Your task to perform on an android device: toggle priority inbox in the gmail app Image 0: 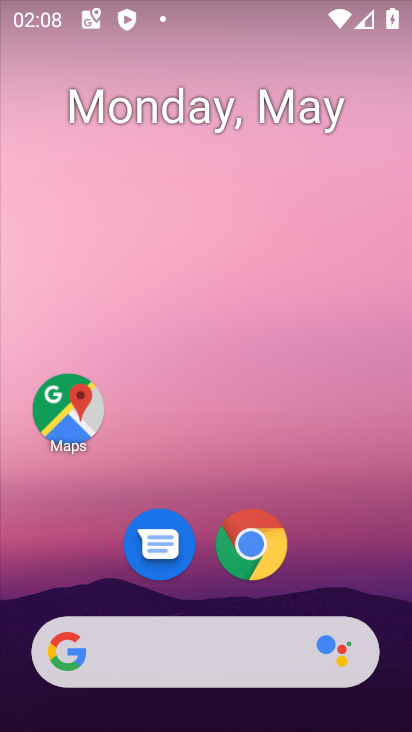
Step 0: drag from (361, 575) to (374, 289)
Your task to perform on an android device: toggle priority inbox in the gmail app Image 1: 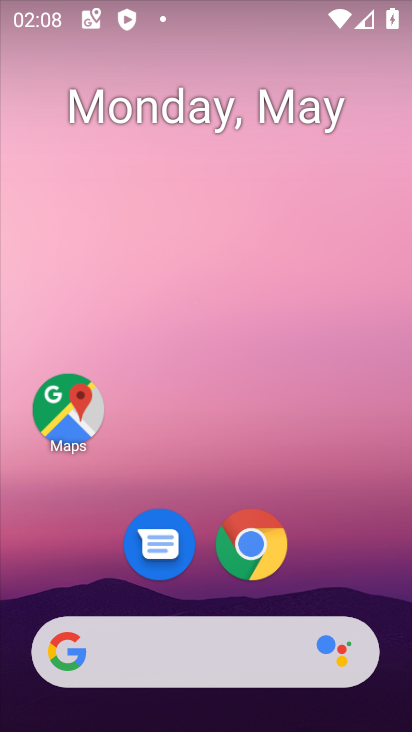
Step 1: drag from (397, 537) to (411, 422)
Your task to perform on an android device: toggle priority inbox in the gmail app Image 2: 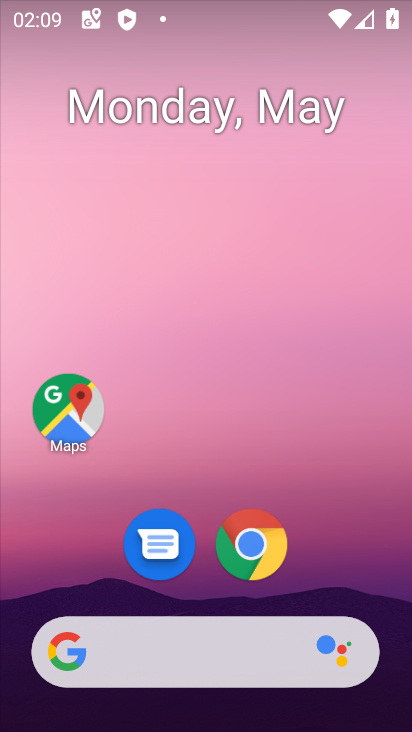
Step 2: drag from (369, 592) to (364, 295)
Your task to perform on an android device: toggle priority inbox in the gmail app Image 3: 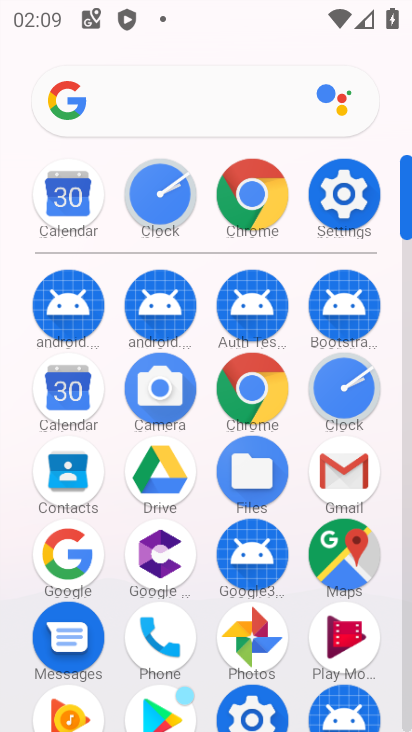
Step 3: click (361, 496)
Your task to perform on an android device: toggle priority inbox in the gmail app Image 4: 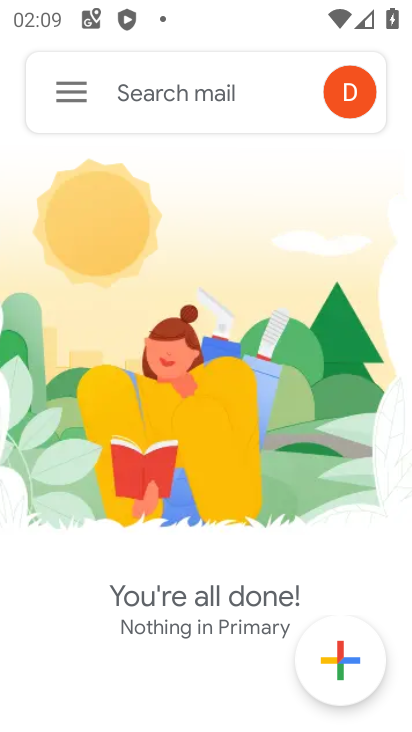
Step 4: click (55, 96)
Your task to perform on an android device: toggle priority inbox in the gmail app Image 5: 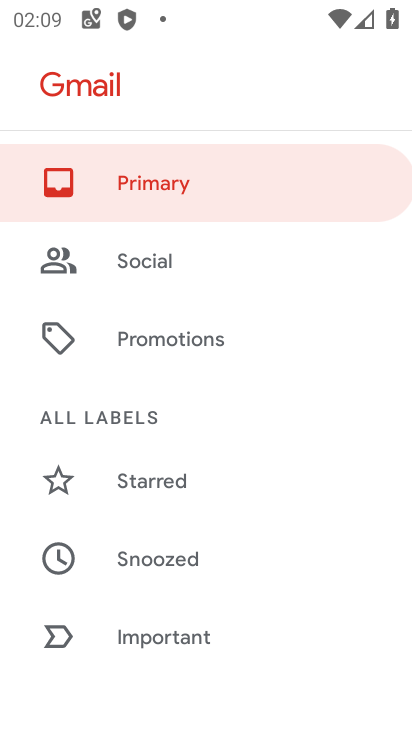
Step 5: drag from (266, 453) to (279, 334)
Your task to perform on an android device: toggle priority inbox in the gmail app Image 6: 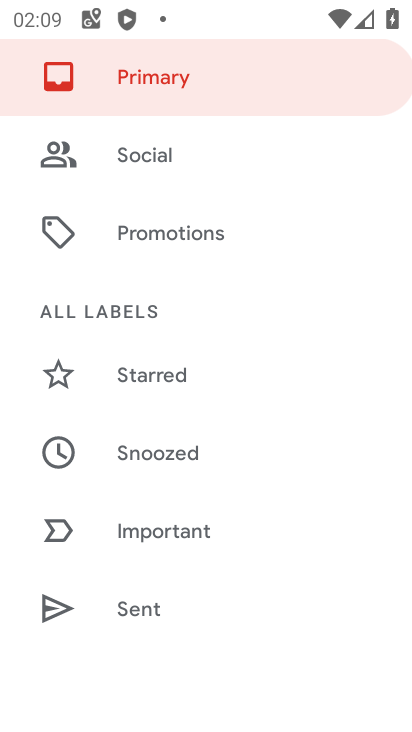
Step 6: drag from (312, 476) to (315, 430)
Your task to perform on an android device: toggle priority inbox in the gmail app Image 7: 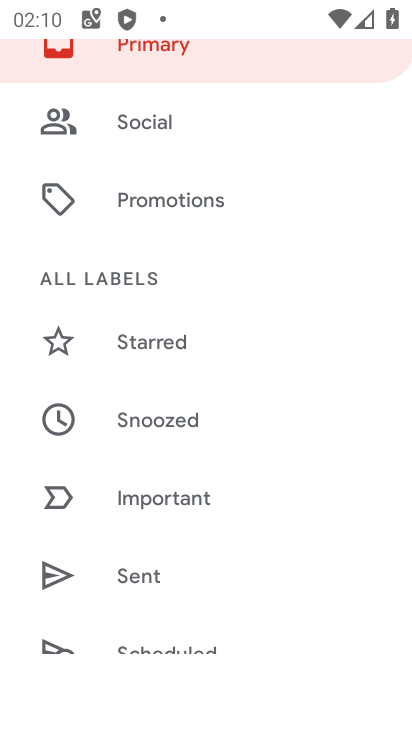
Step 7: drag from (273, 529) to (278, 467)
Your task to perform on an android device: toggle priority inbox in the gmail app Image 8: 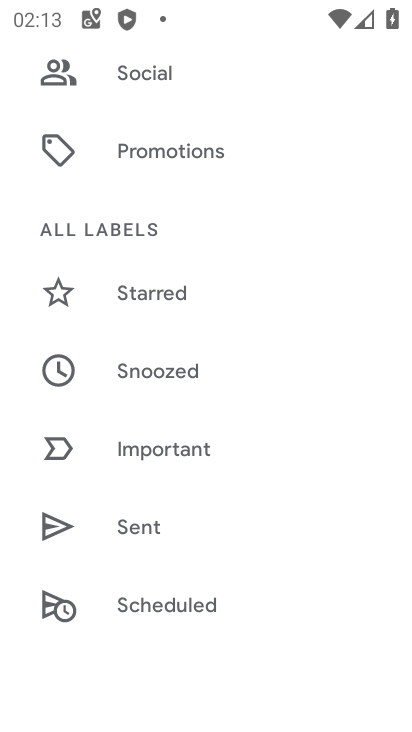
Step 8: drag from (279, 577) to (310, 351)
Your task to perform on an android device: toggle priority inbox in the gmail app Image 9: 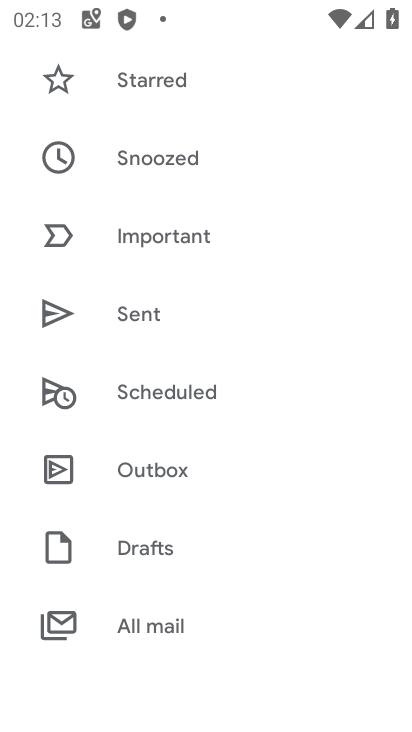
Step 9: drag from (282, 586) to (314, 405)
Your task to perform on an android device: toggle priority inbox in the gmail app Image 10: 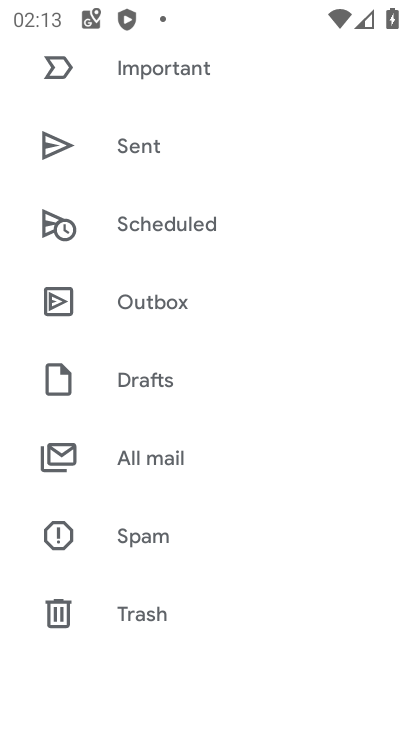
Step 10: drag from (285, 591) to (302, 435)
Your task to perform on an android device: toggle priority inbox in the gmail app Image 11: 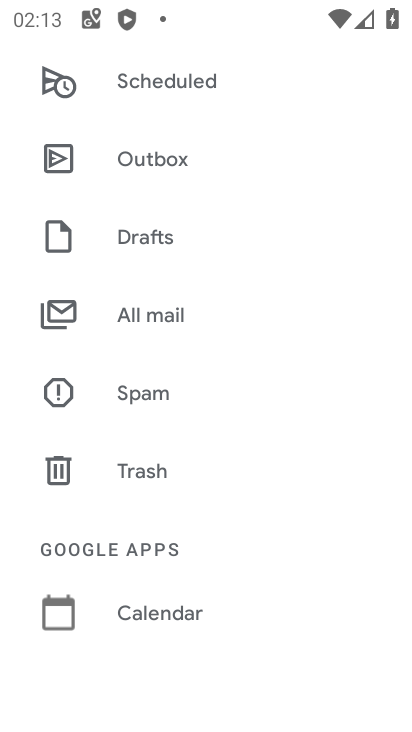
Step 11: drag from (276, 563) to (289, 405)
Your task to perform on an android device: toggle priority inbox in the gmail app Image 12: 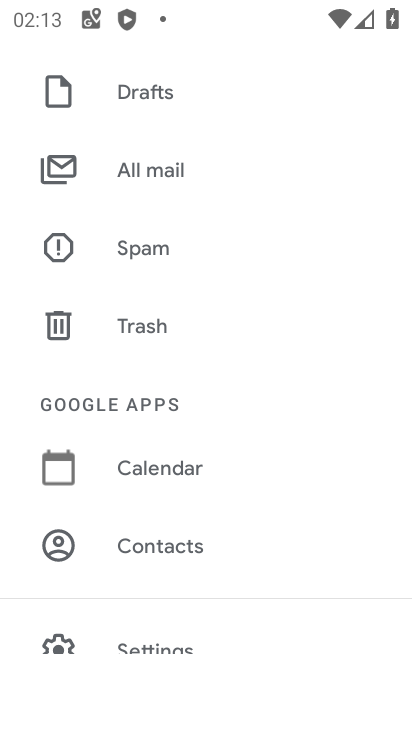
Step 12: drag from (257, 628) to (266, 469)
Your task to perform on an android device: toggle priority inbox in the gmail app Image 13: 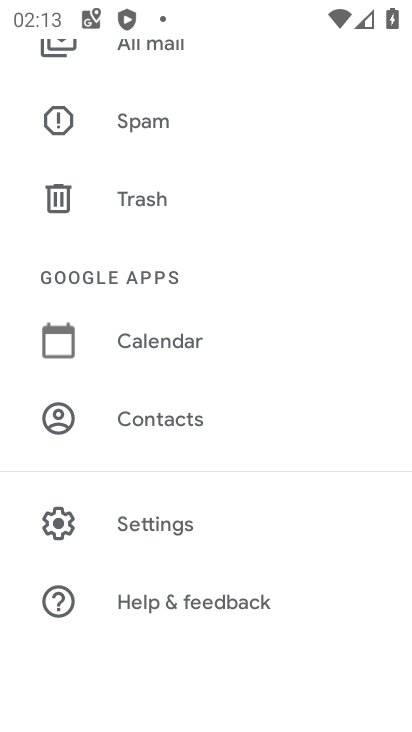
Step 13: click (214, 521)
Your task to perform on an android device: toggle priority inbox in the gmail app Image 14: 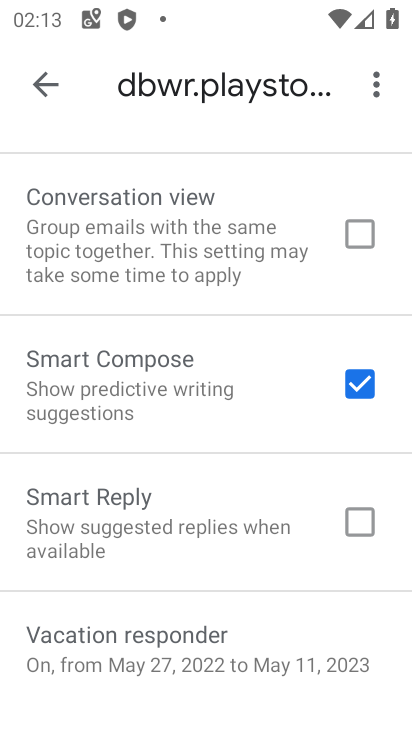
Step 14: drag from (229, 543) to (256, 363)
Your task to perform on an android device: toggle priority inbox in the gmail app Image 15: 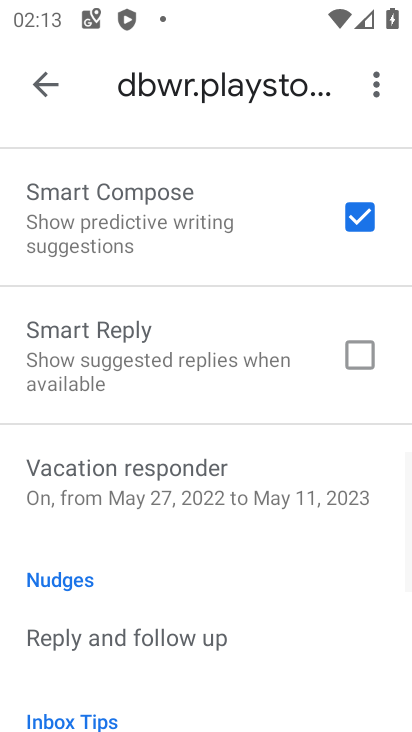
Step 15: drag from (257, 272) to (275, 528)
Your task to perform on an android device: toggle priority inbox in the gmail app Image 16: 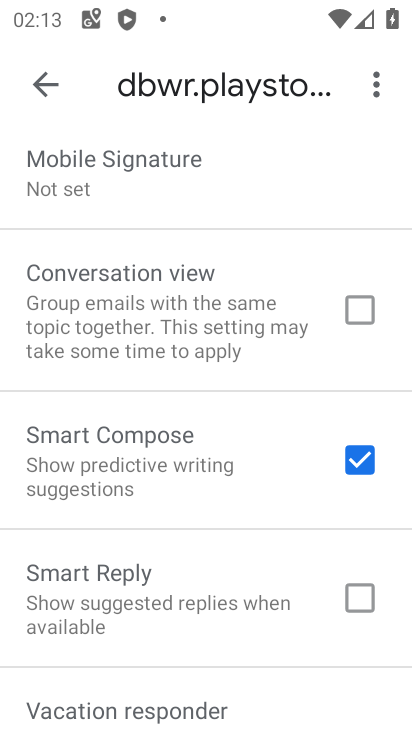
Step 16: drag from (278, 262) to (243, 486)
Your task to perform on an android device: toggle priority inbox in the gmail app Image 17: 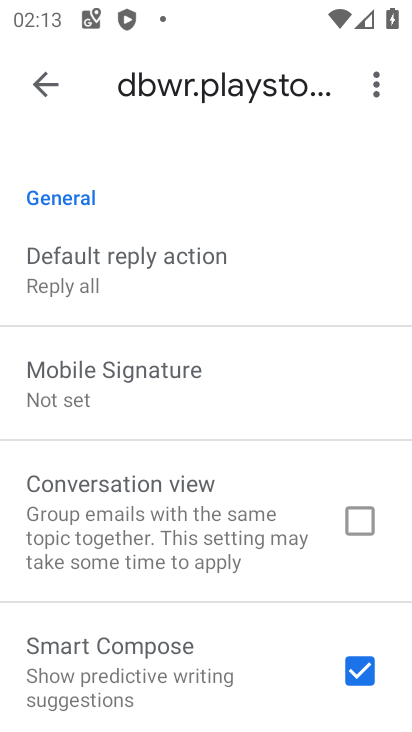
Step 17: drag from (149, 218) to (142, 454)
Your task to perform on an android device: toggle priority inbox in the gmail app Image 18: 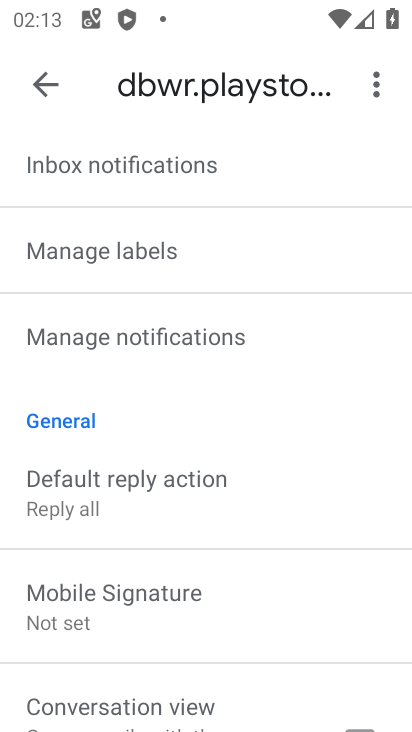
Step 18: drag from (158, 203) to (148, 450)
Your task to perform on an android device: toggle priority inbox in the gmail app Image 19: 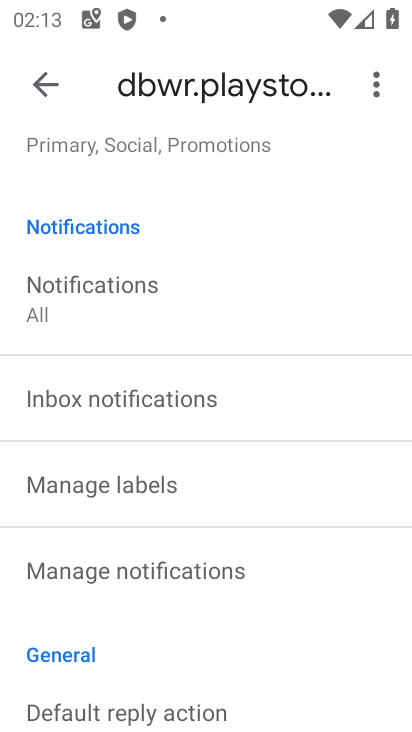
Step 19: drag from (100, 202) to (118, 480)
Your task to perform on an android device: toggle priority inbox in the gmail app Image 20: 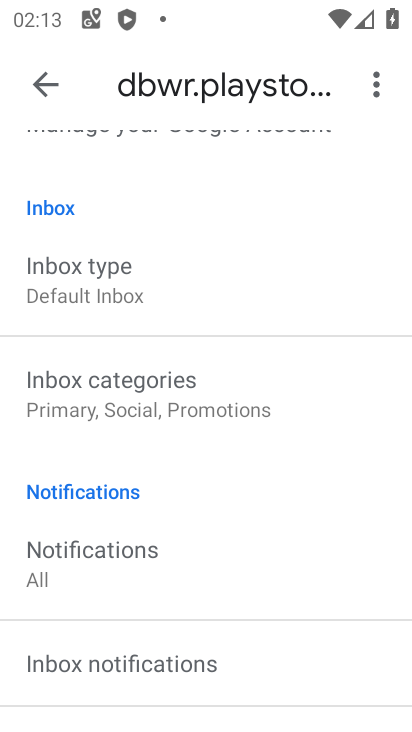
Step 20: click (101, 278)
Your task to perform on an android device: toggle priority inbox in the gmail app Image 21: 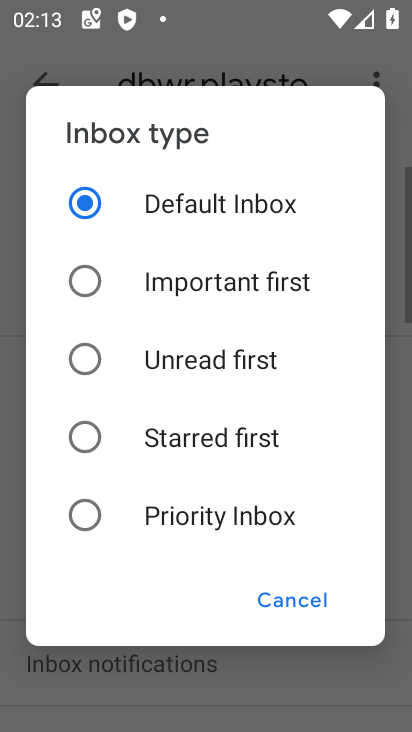
Step 21: click (210, 529)
Your task to perform on an android device: toggle priority inbox in the gmail app Image 22: 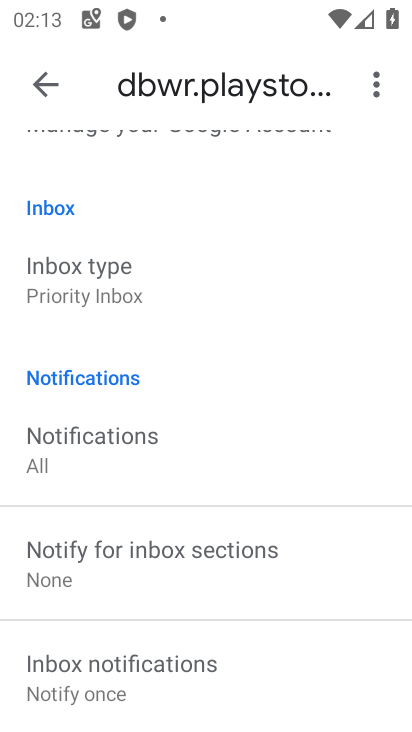
Step 22: task complete